Your task to perform on an android device: turn off notifications in google photos Image 0: 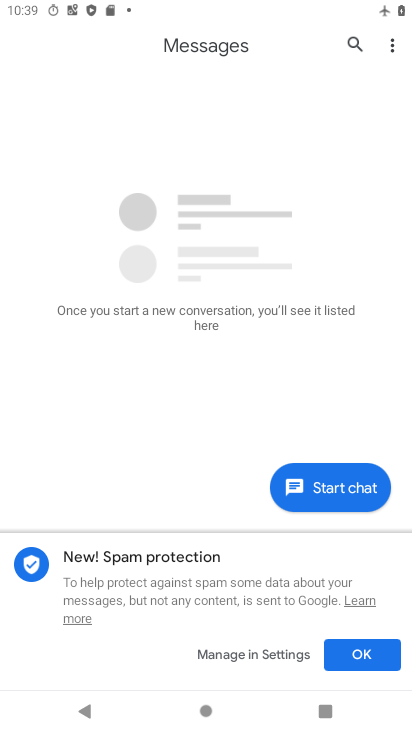
Step 0: press home button
Your task to perform on an android device: turn off notifications in google photos Image 1: 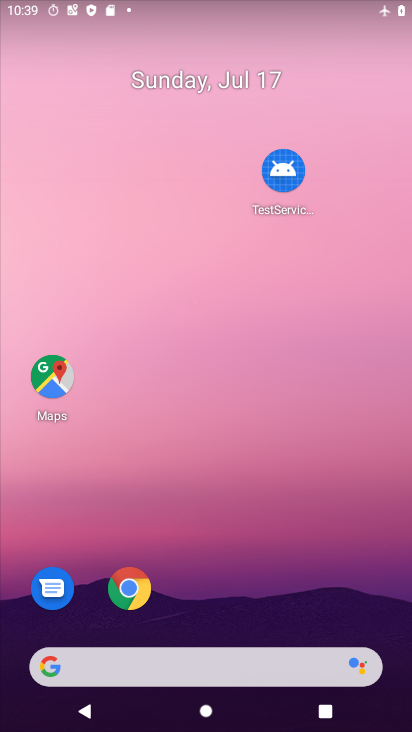
Step 1: drag from (254, 590) to (301, 215)
Your task to perform on an android device: turn off notifications in google photos Image 2: 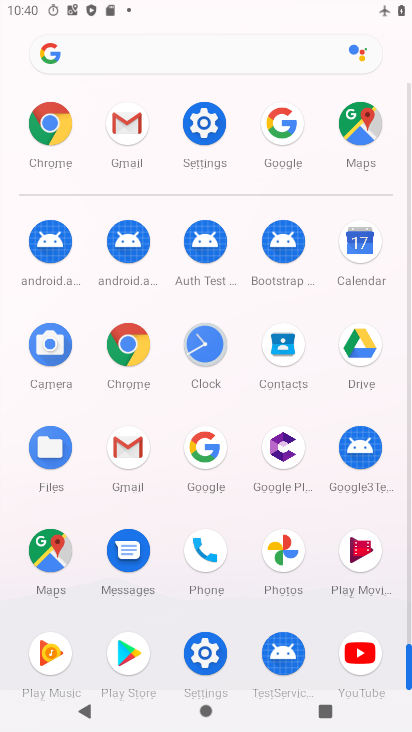
Step 2: click (261, 557)
Your task to perform on an android device: turn off notifications in google photos Image 3: 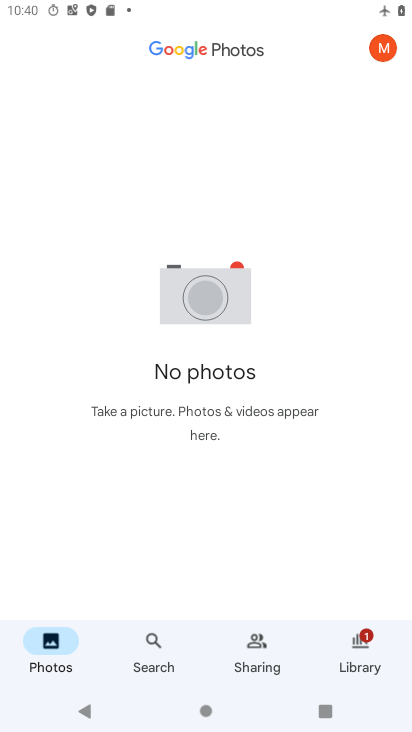
Step 3: click (381, 55)
Your task to perform on an android device: turn off notifications in google photos Image 4: 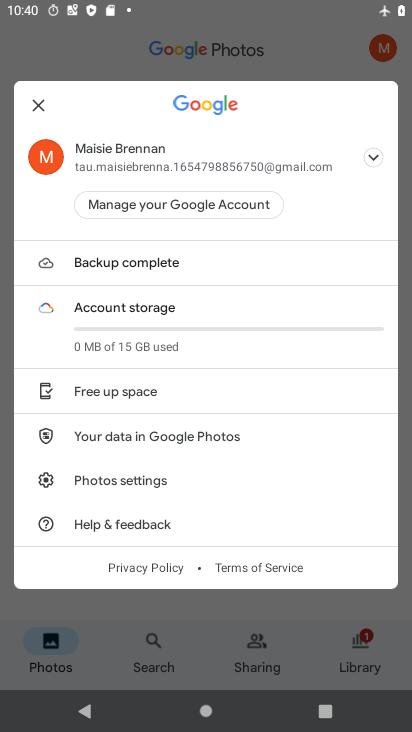
Step 4: click (99, 483)
Your task to perform on an android device: turn off notifications in google photos Image 5: 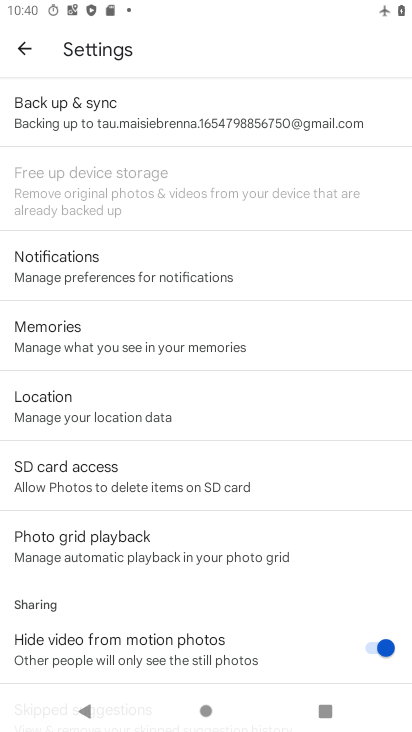
Step 5: click (137, 280)
Your task to perform on an android device: turn off notifications in google photos Image 6: 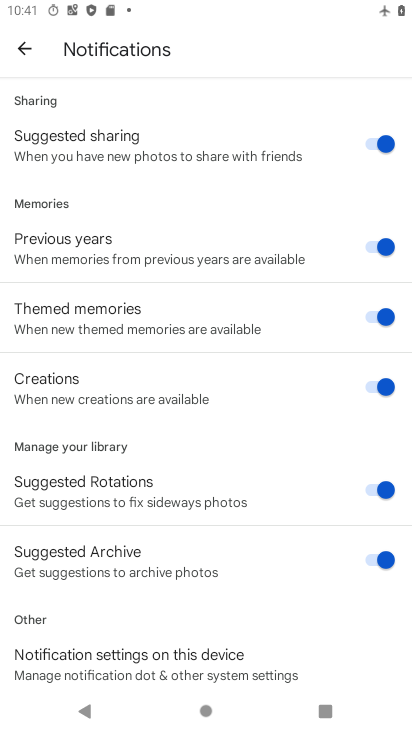
Step 6: drag from (131, 512) to (200, 95)
Your task to perform on an android device: turn off notifications in google photos Image 7: 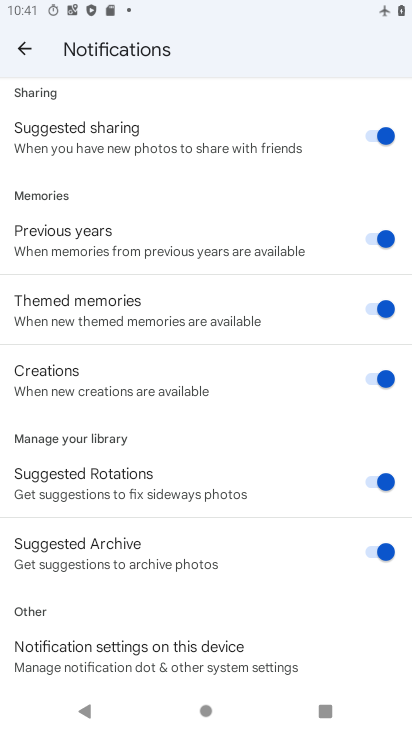
Step 7: click (140, 652)
Your task to perform on an android device: turn off notifications in google photos Image 8: 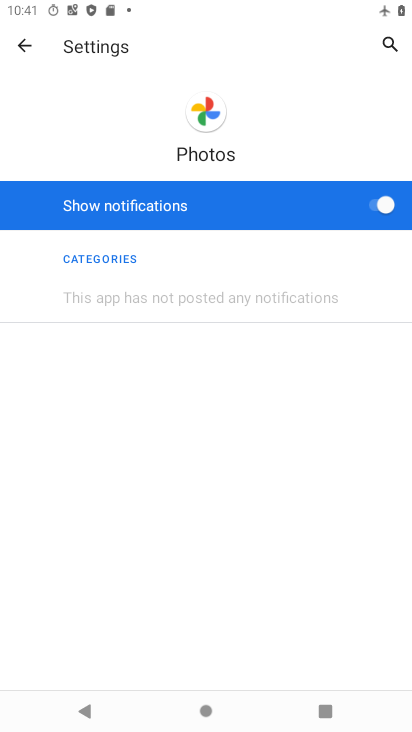
Step 8: click (367, 207)
Your task to perform on an android device: turn off notifications in google photos Image 9: 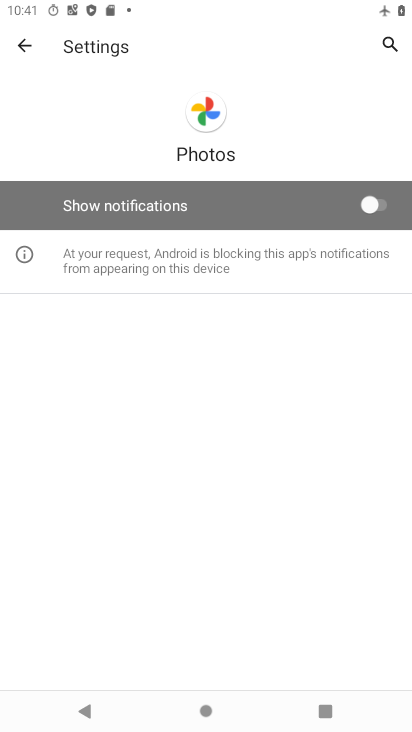
Step 9: task complete